Your task to perform on an android device: What's a good restaurant in Las Vegas? Image 0: 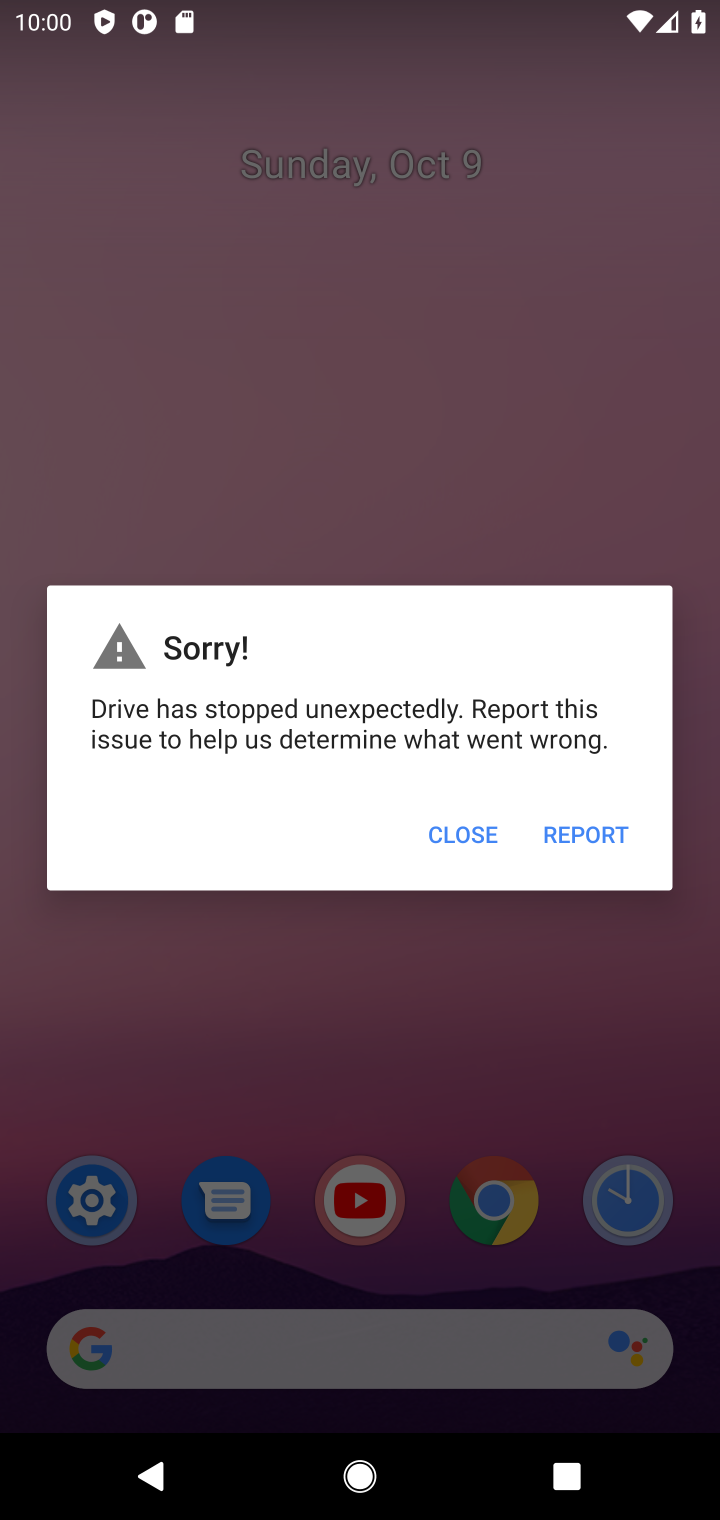
Step 0: click (449, 831)
Your task to perform on an android device: What's a good restaurant in Las Vegas? Image 1: 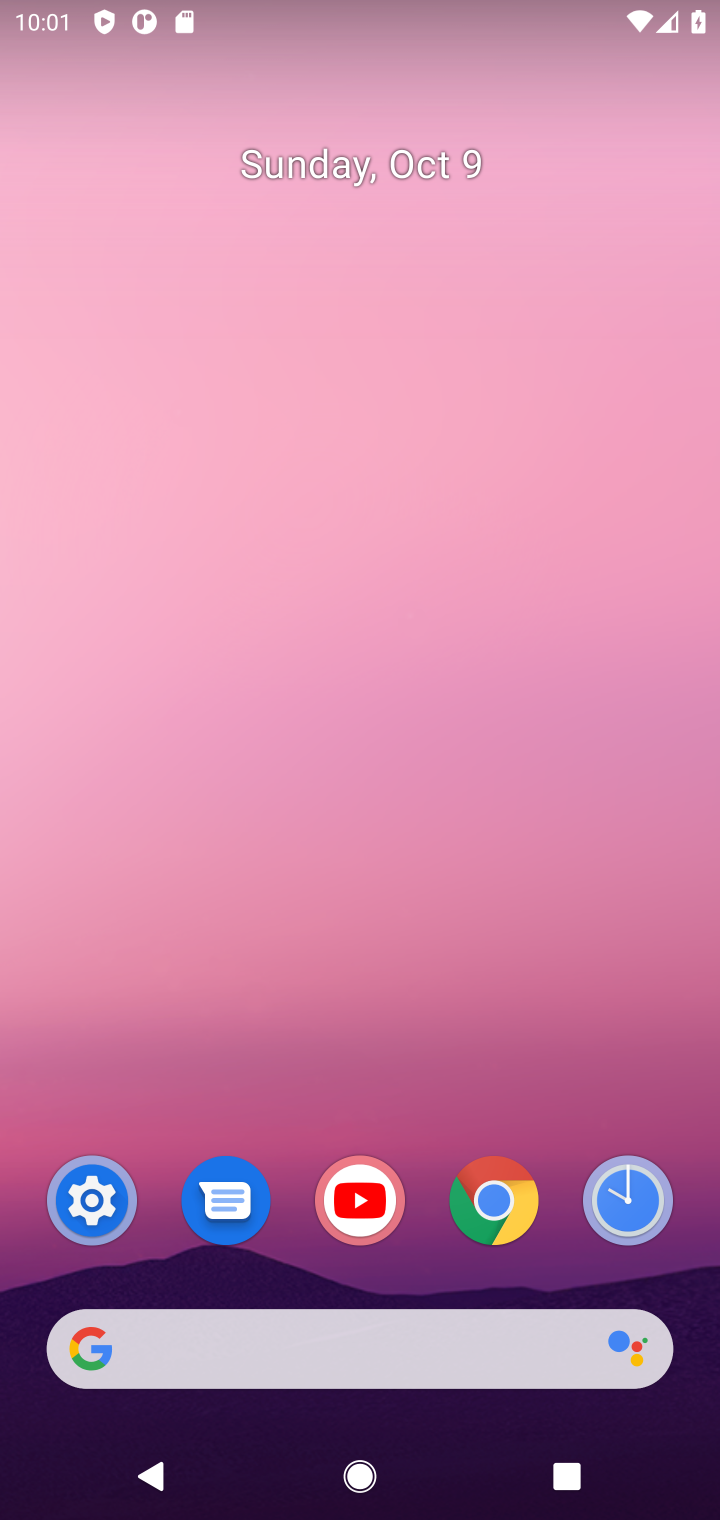
Step 1: click (490, 1231)
Your task to perform on an android device: What's a good restaurant in Las Vegas? Image 2: 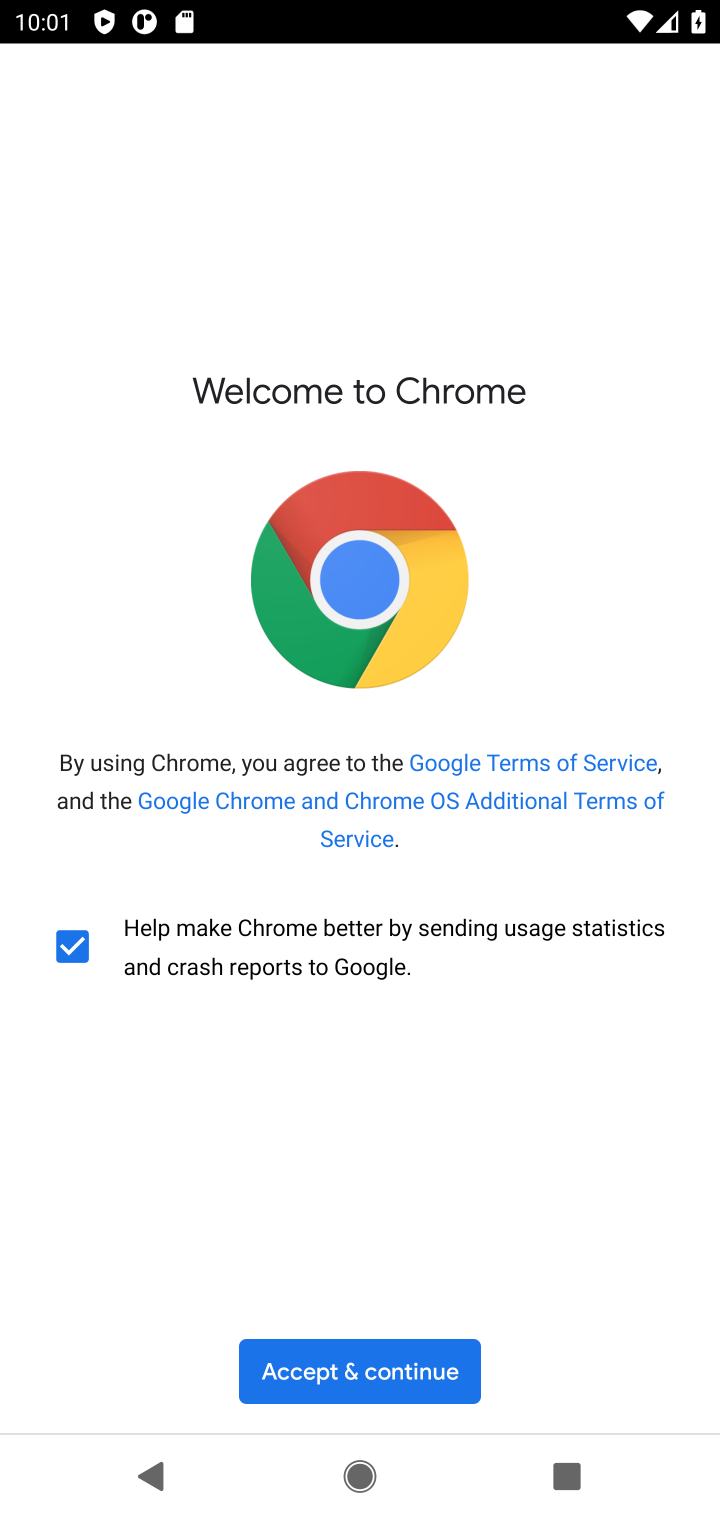
Step 2: click (435, 1362)
Your task to perform on an android device: What's a good restaurant in Las Vegas? Image 3: 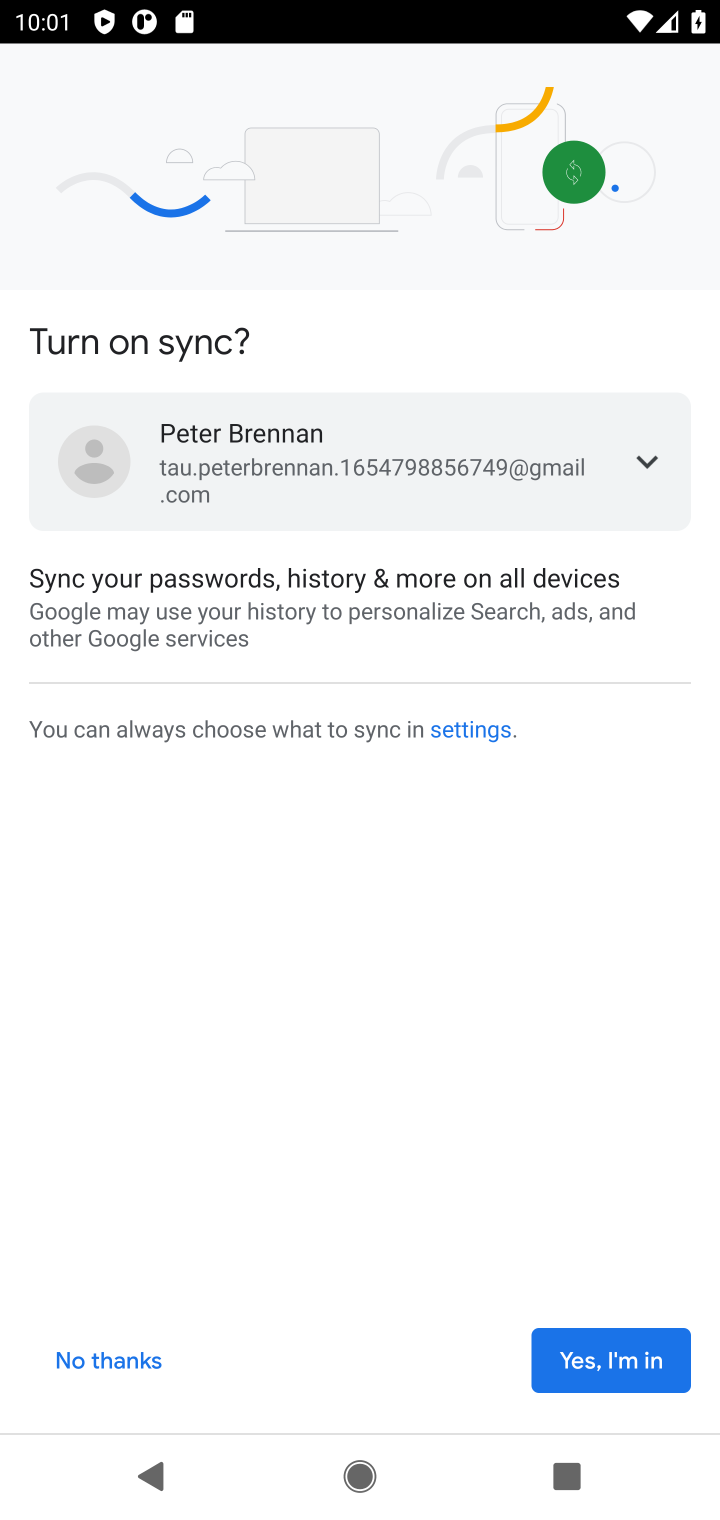
Step 3: click (612, 1348)
Your task to perform on an android device: What's a good restaurant in Las Vegas? Image 4: 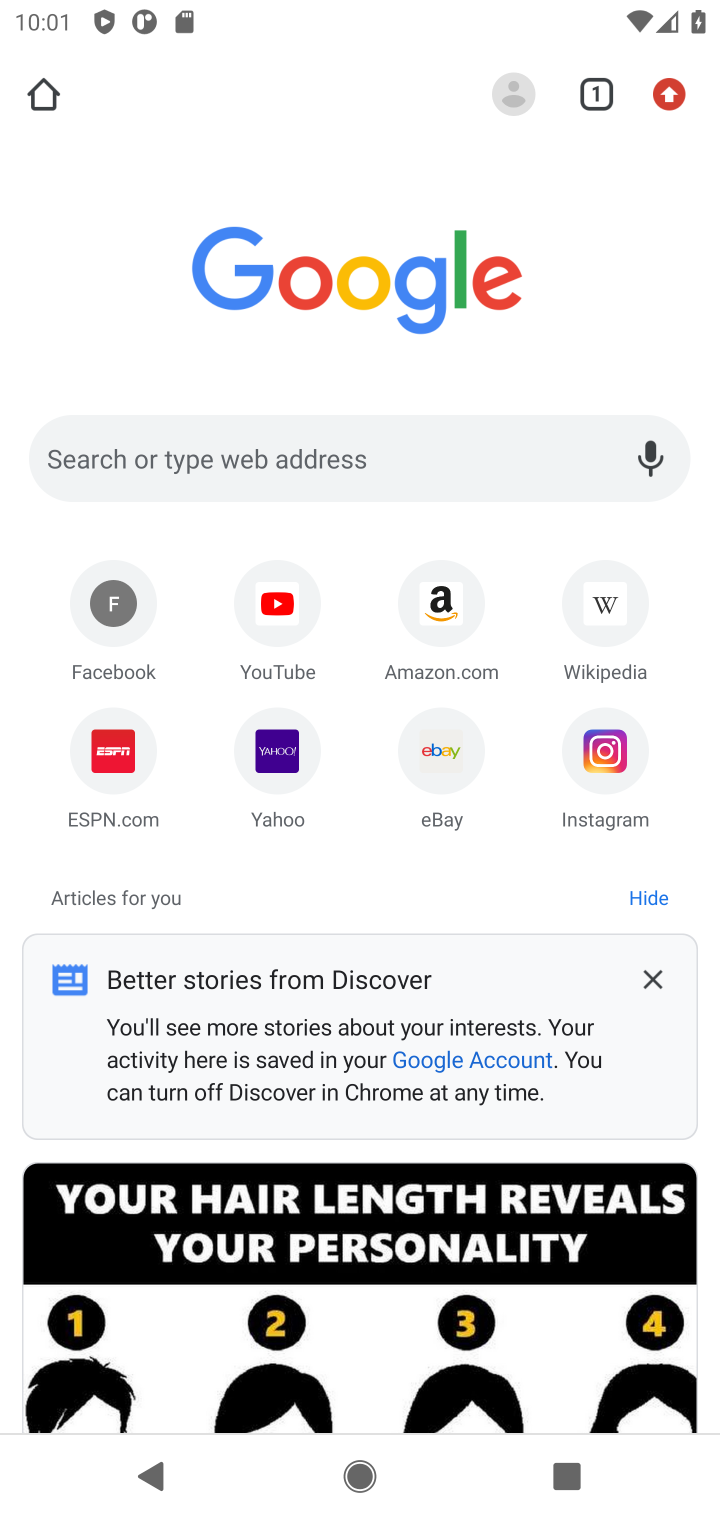
Step 4: click (354, 486)
Your task to perform on an android device: What's a good restaurant in Las Vegas? Image 5: 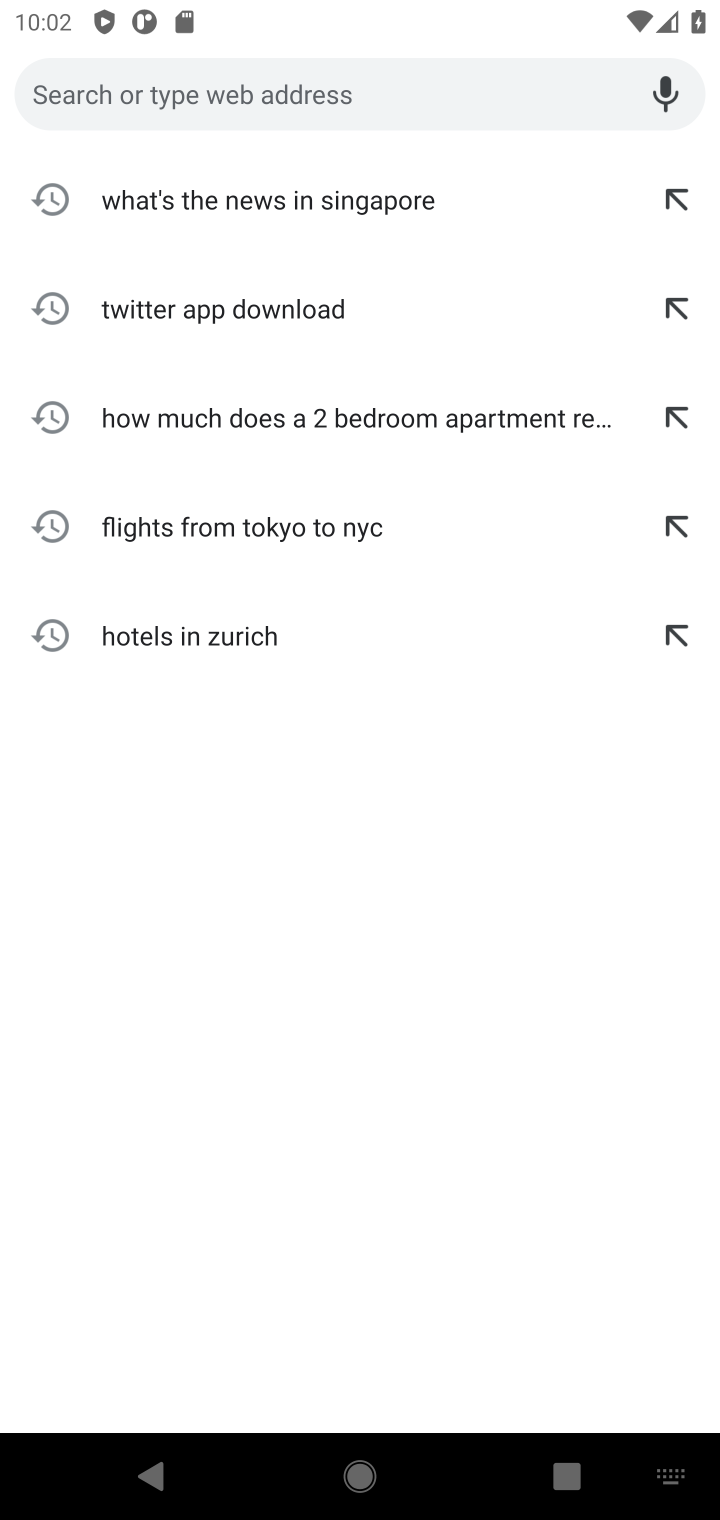
Step 5: type "good restaurants in las vegas"
Your task to perform on an android device: What's a good restaurant in Las Vegas? Image 6: 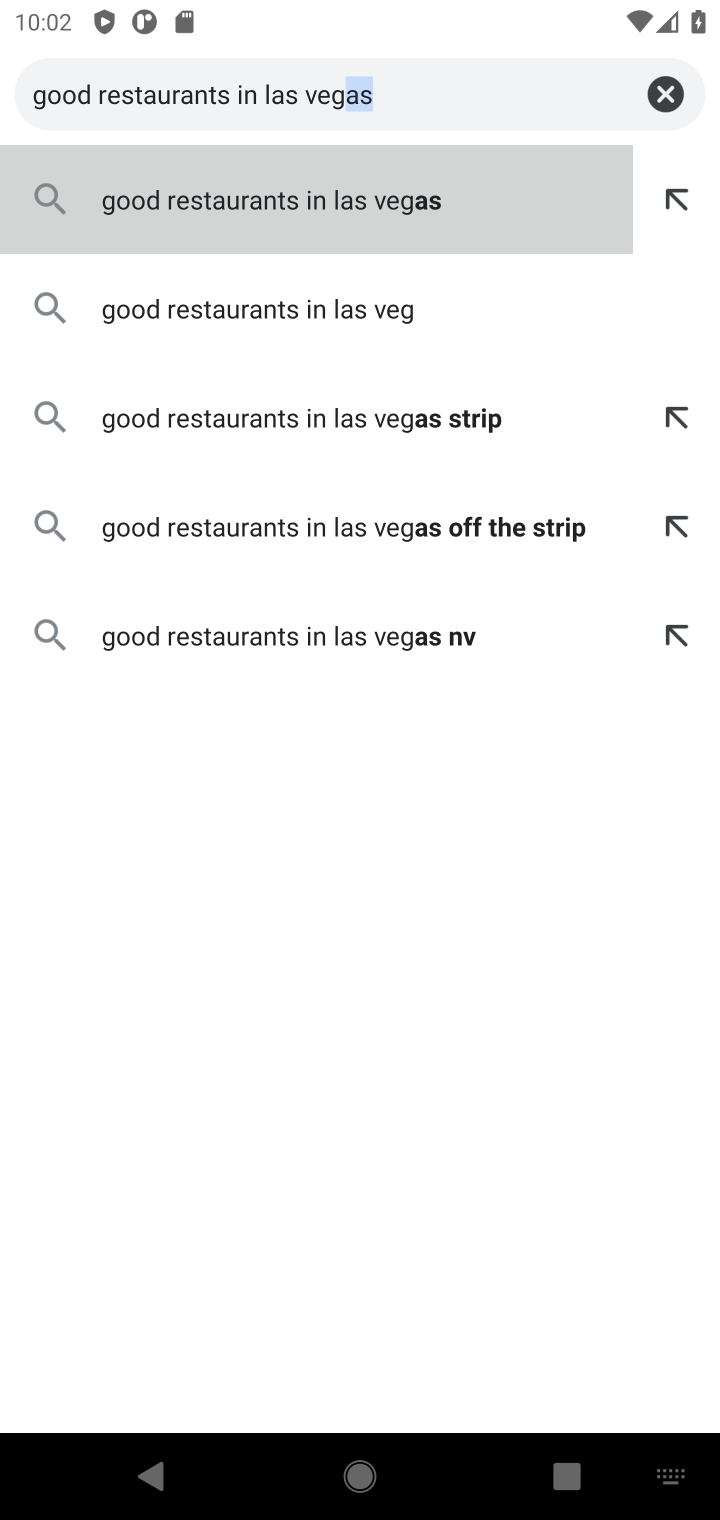
Step 6: press enter
Your task to perform on an android device: What's a good restaurant in Las Vegas? Image 7: 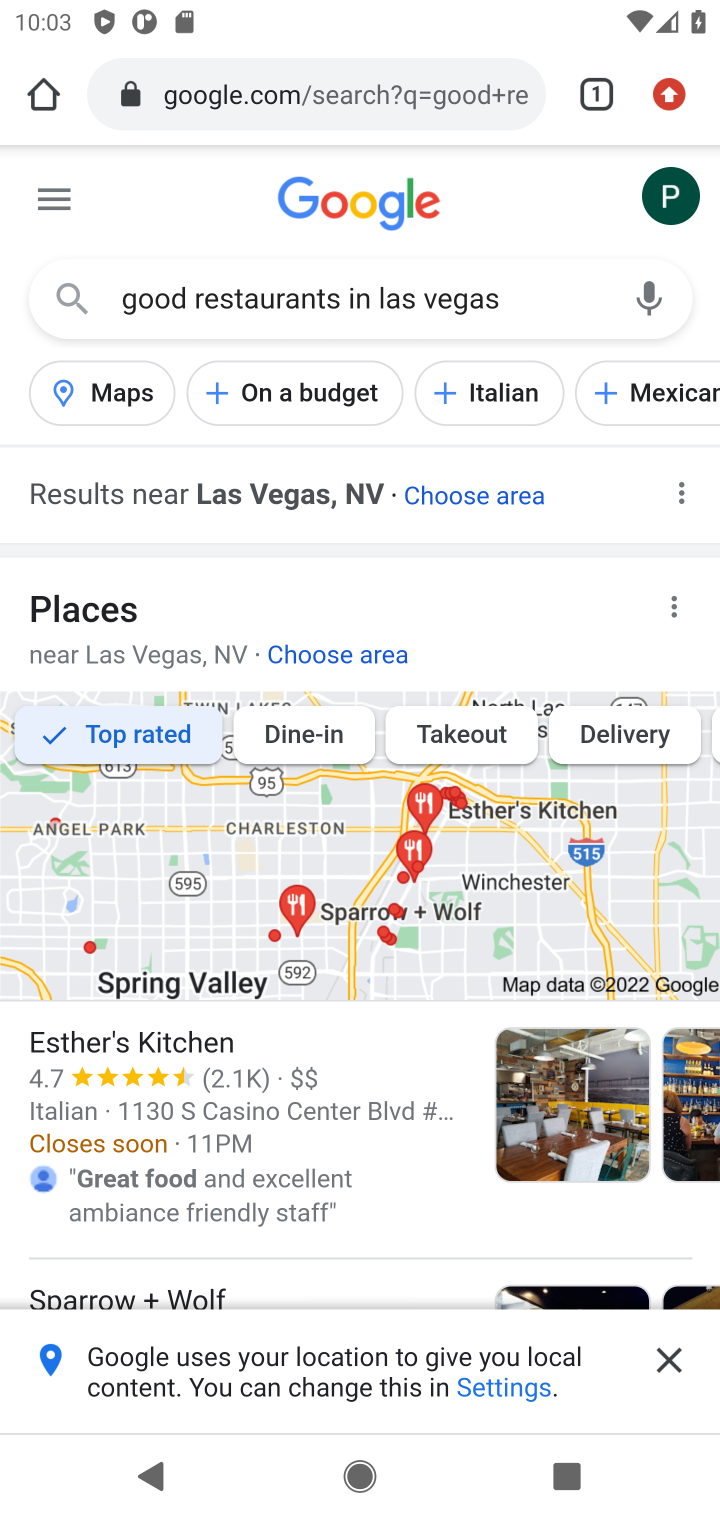
Step 7: task complete